Your task to perform on an android device: see creations saved in the google photos Image 0: 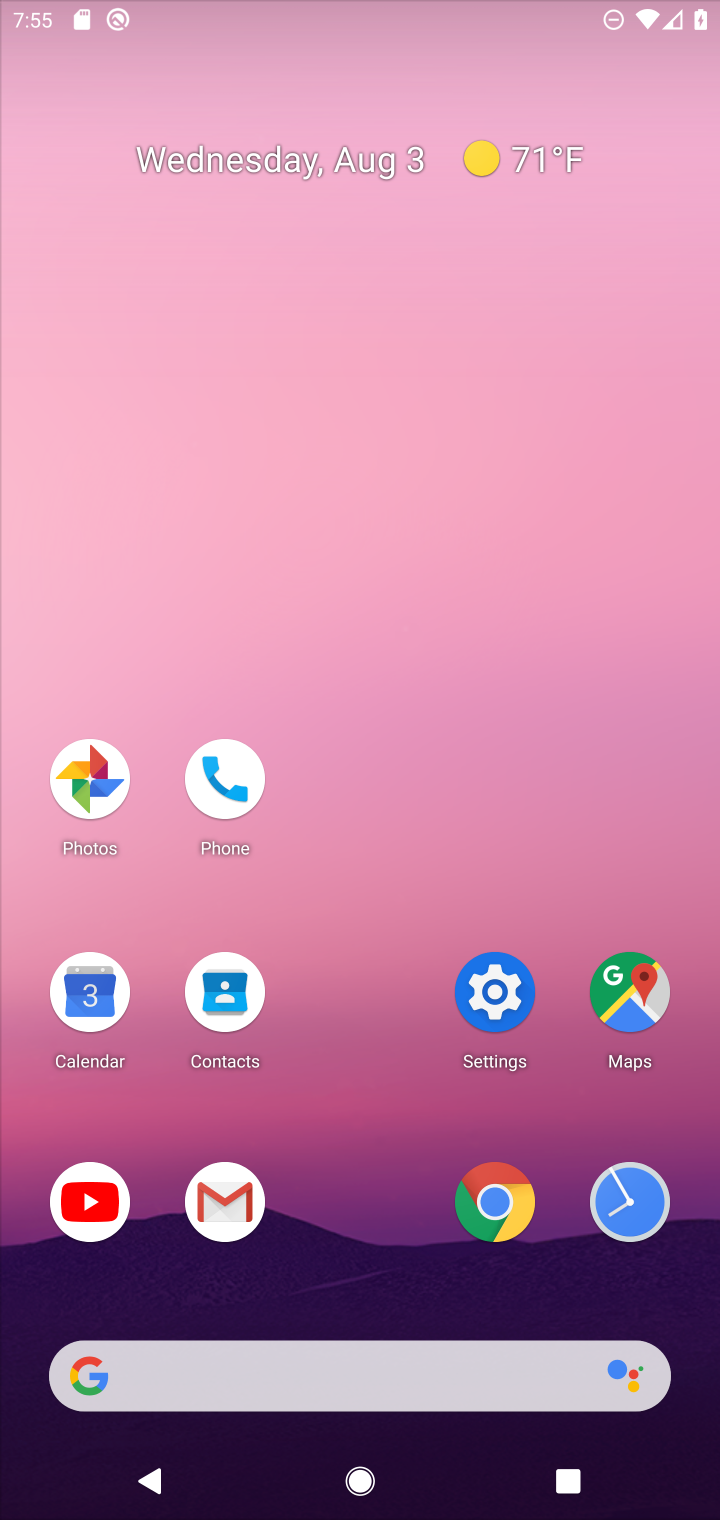
Step 0: press home button
Your task to perform on an android device: see creations saved in the google photos Image 1: 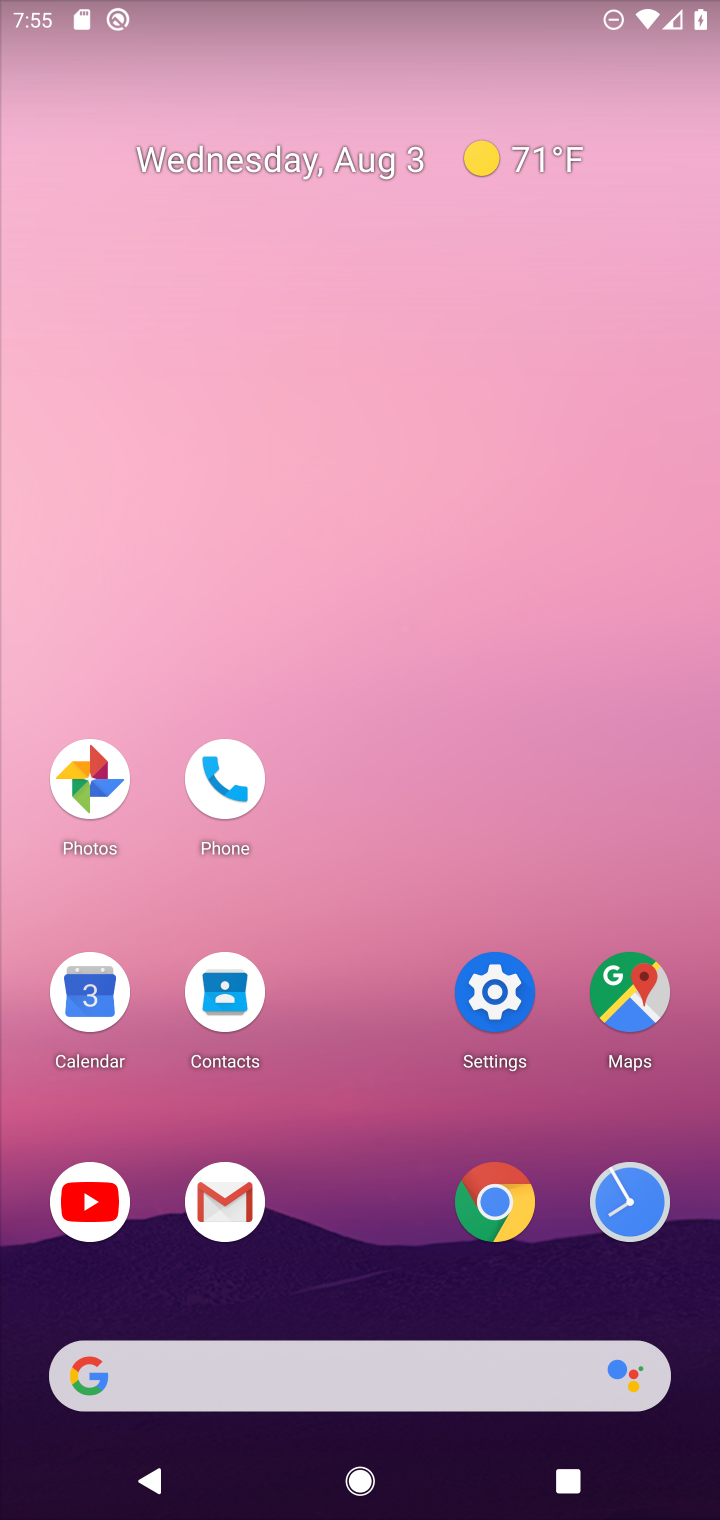
Step 1: click (64, 785)
Your task to perform on an android device: see creations saved in the google photos Image 2: 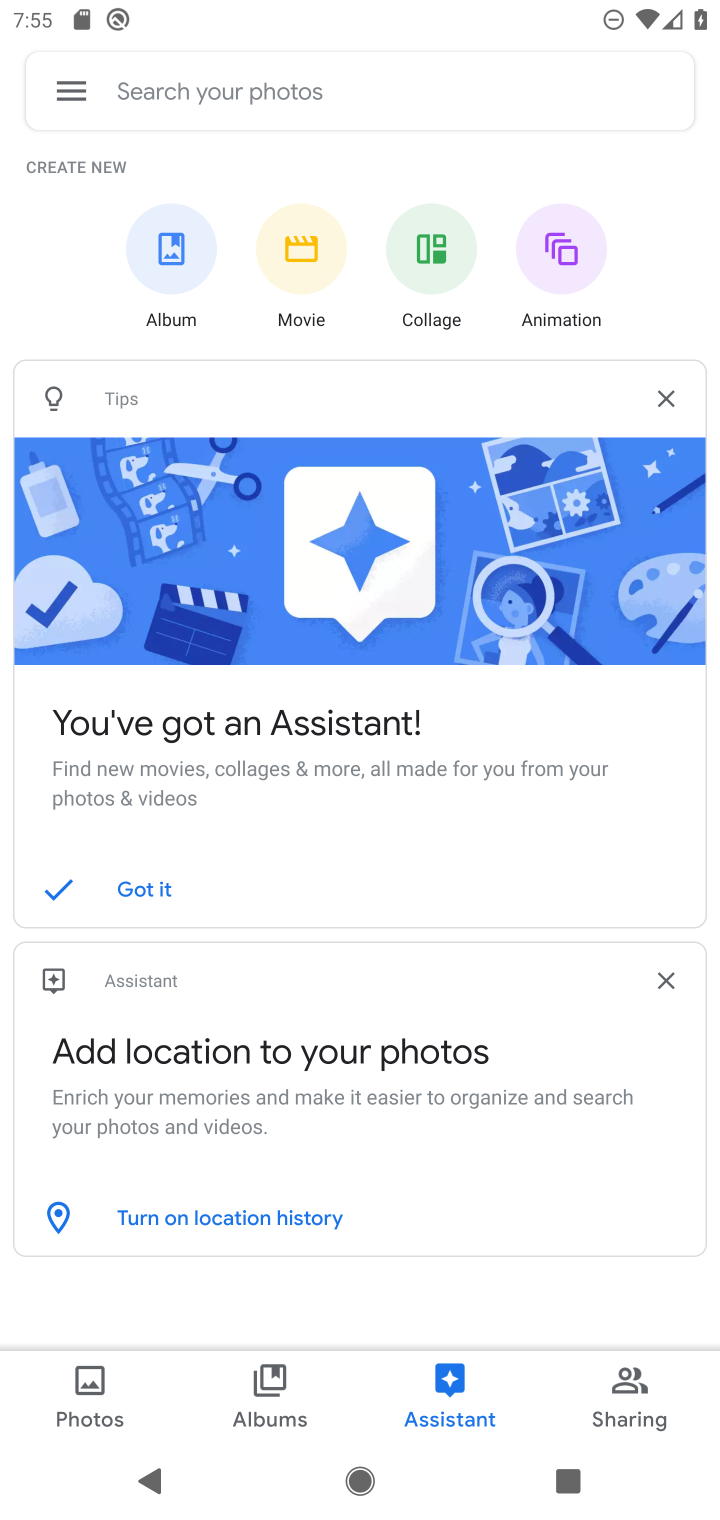
Step 2: click (156, 100)
Your task to perform on an android device: see creations saved in the google photos Image 3: 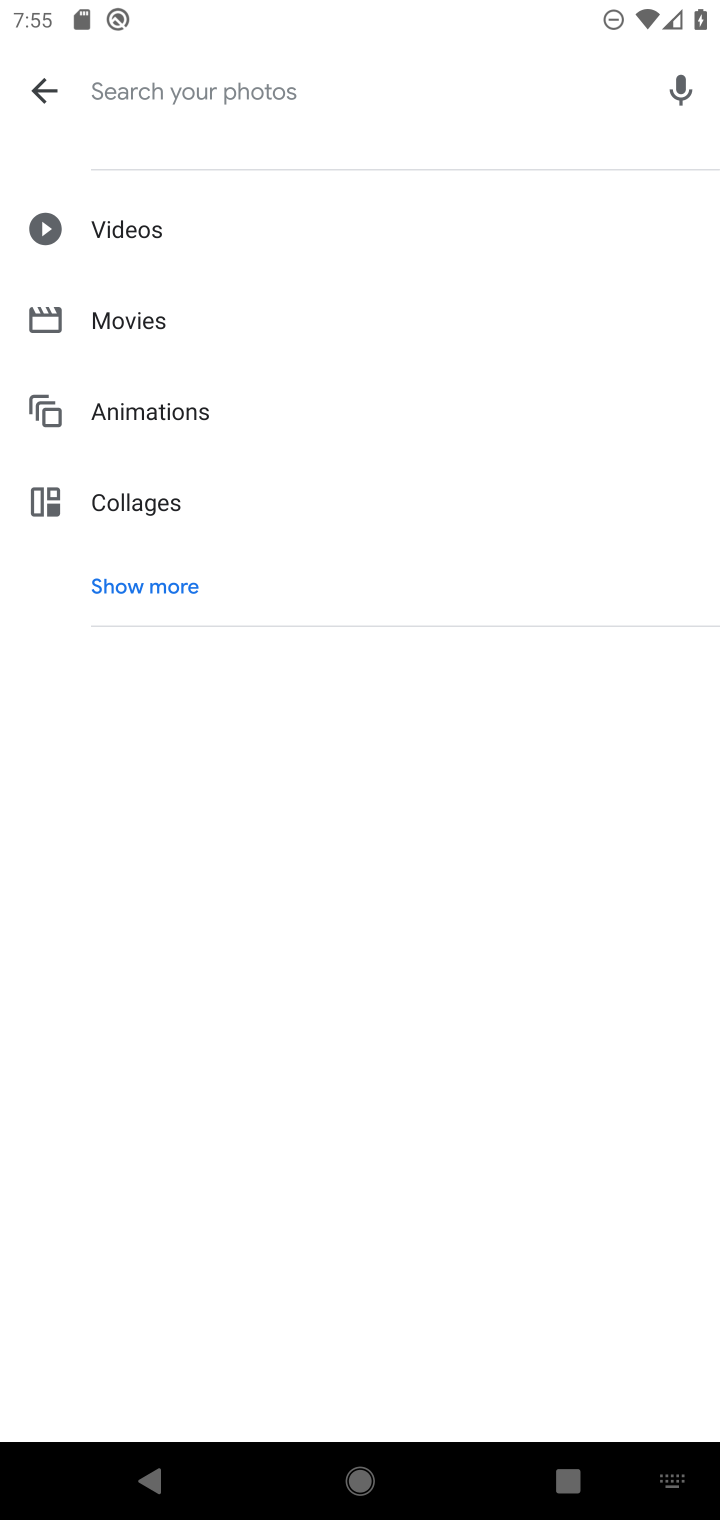
Step 3: click (131, 594)
Your task to perform on an android device: see creations saved in the google photos Image 4: 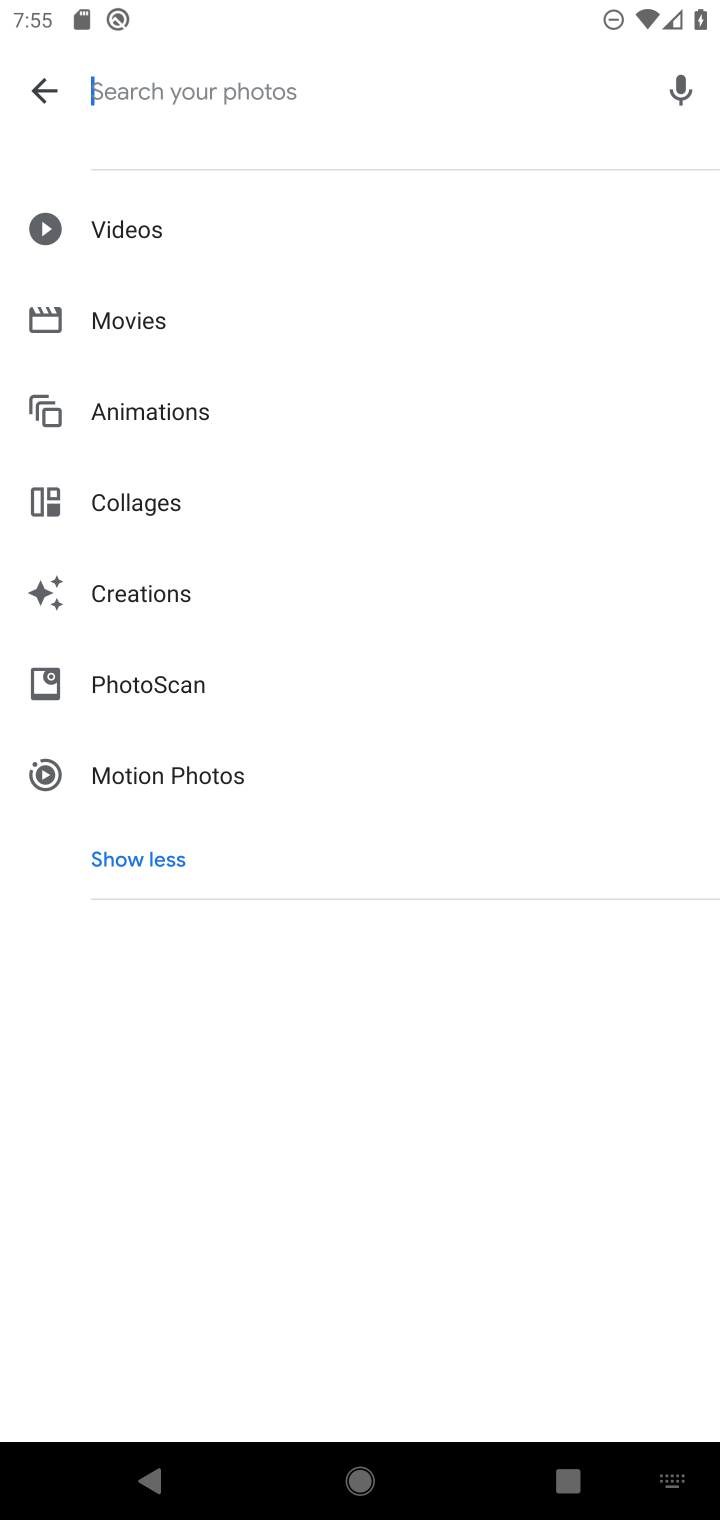
Step 4: click (132, 578)
Your task to perform on an android device: see creations saved in the google photos Image 5: 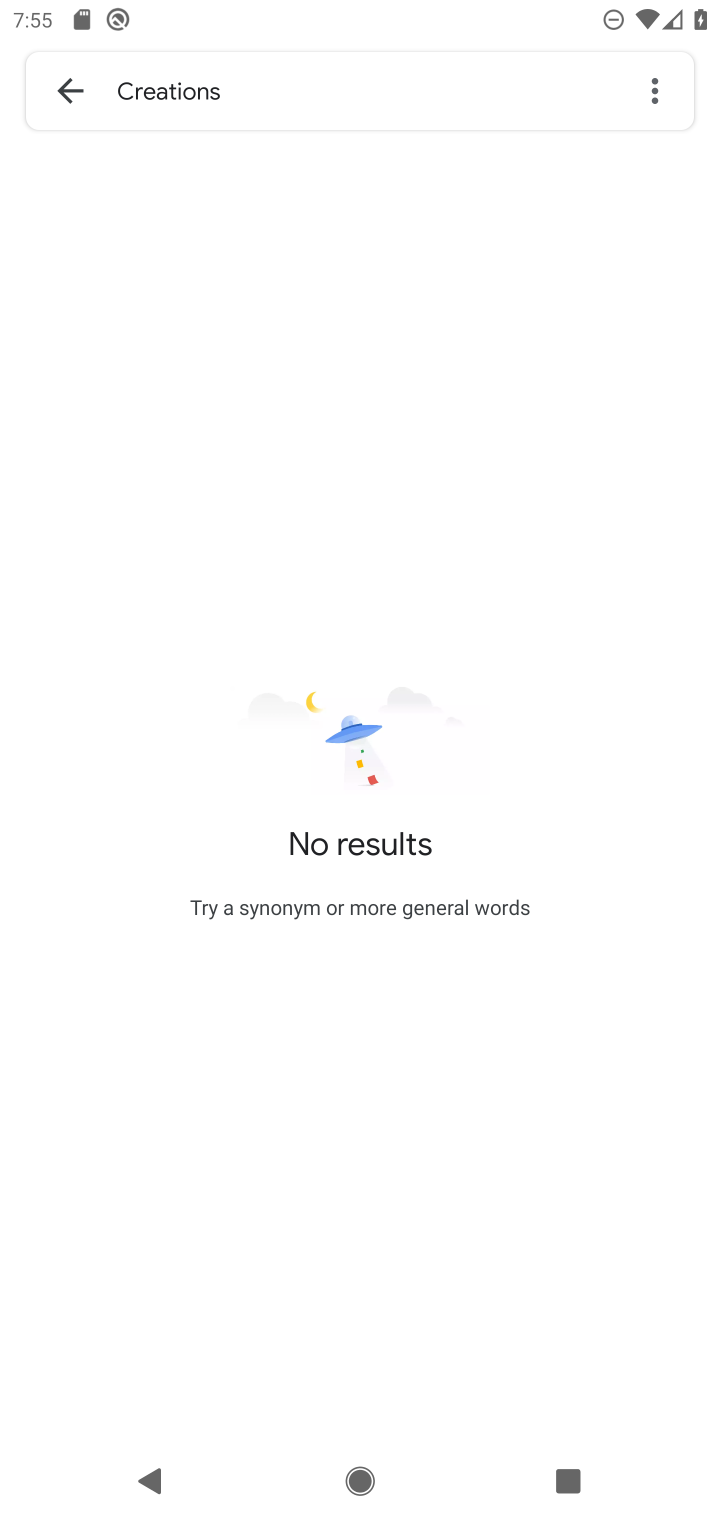
Step 5: task complete